Your task to perform on an android device: Open Google Maps Image 0: 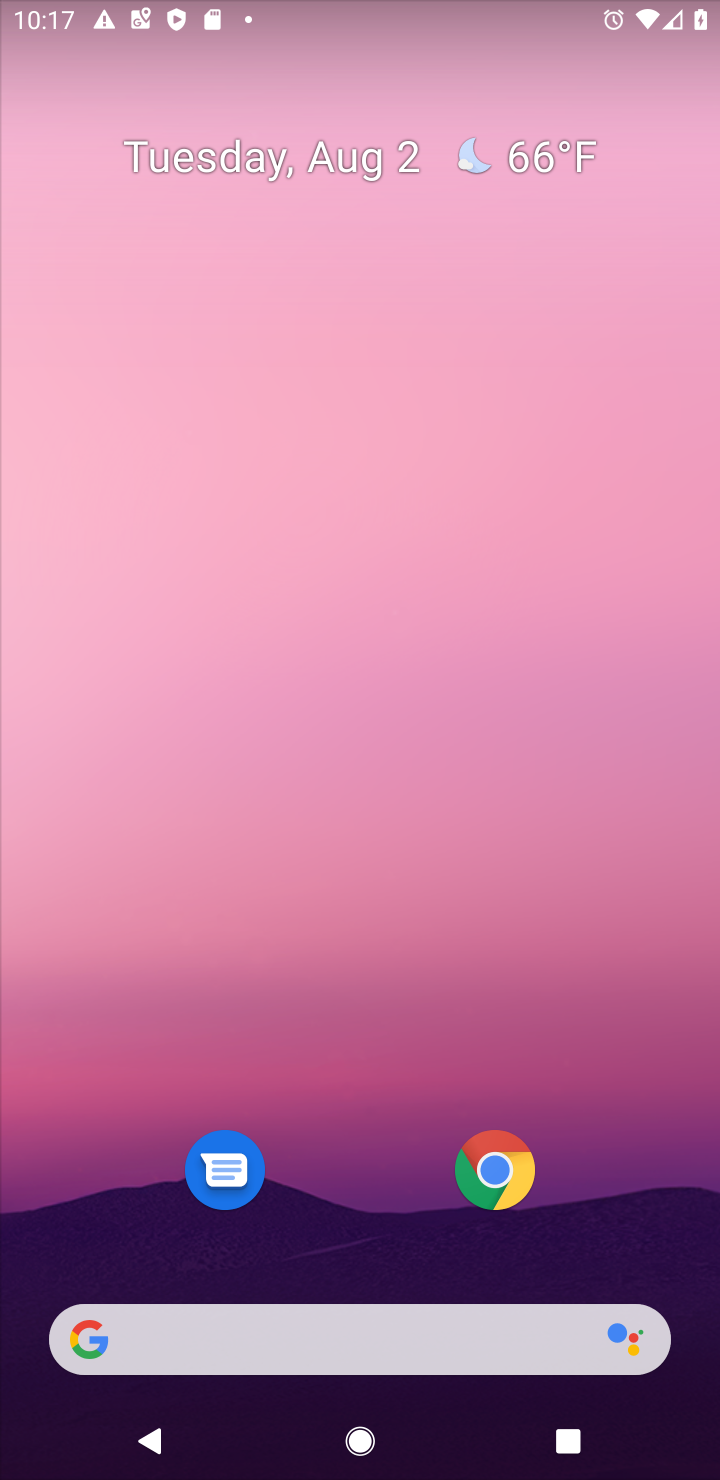
Step 0: click (378, 572)
Your task to perform on an android device: Open Google Maps Image 1: 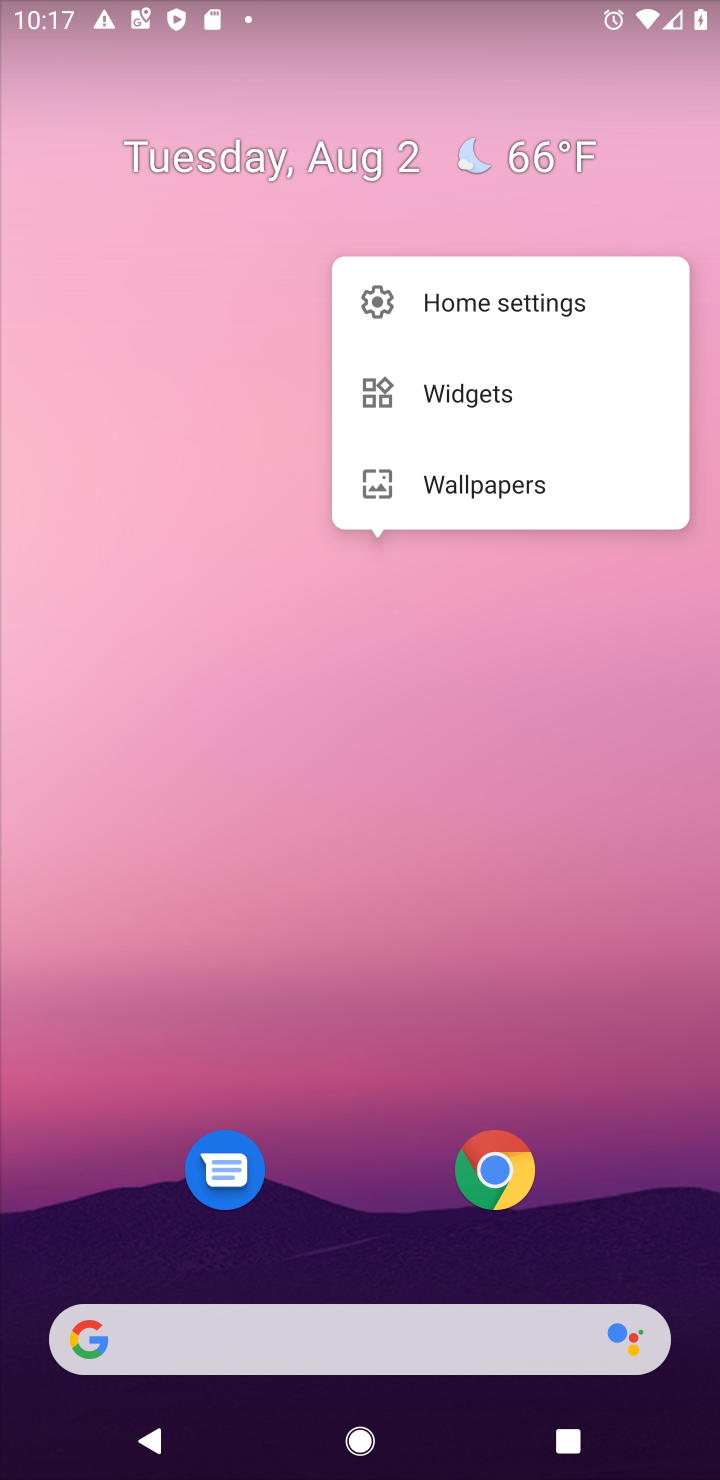
Step 1: click (300, 1211)
Your task to perform on an android device: Open Google Maps Image 2: 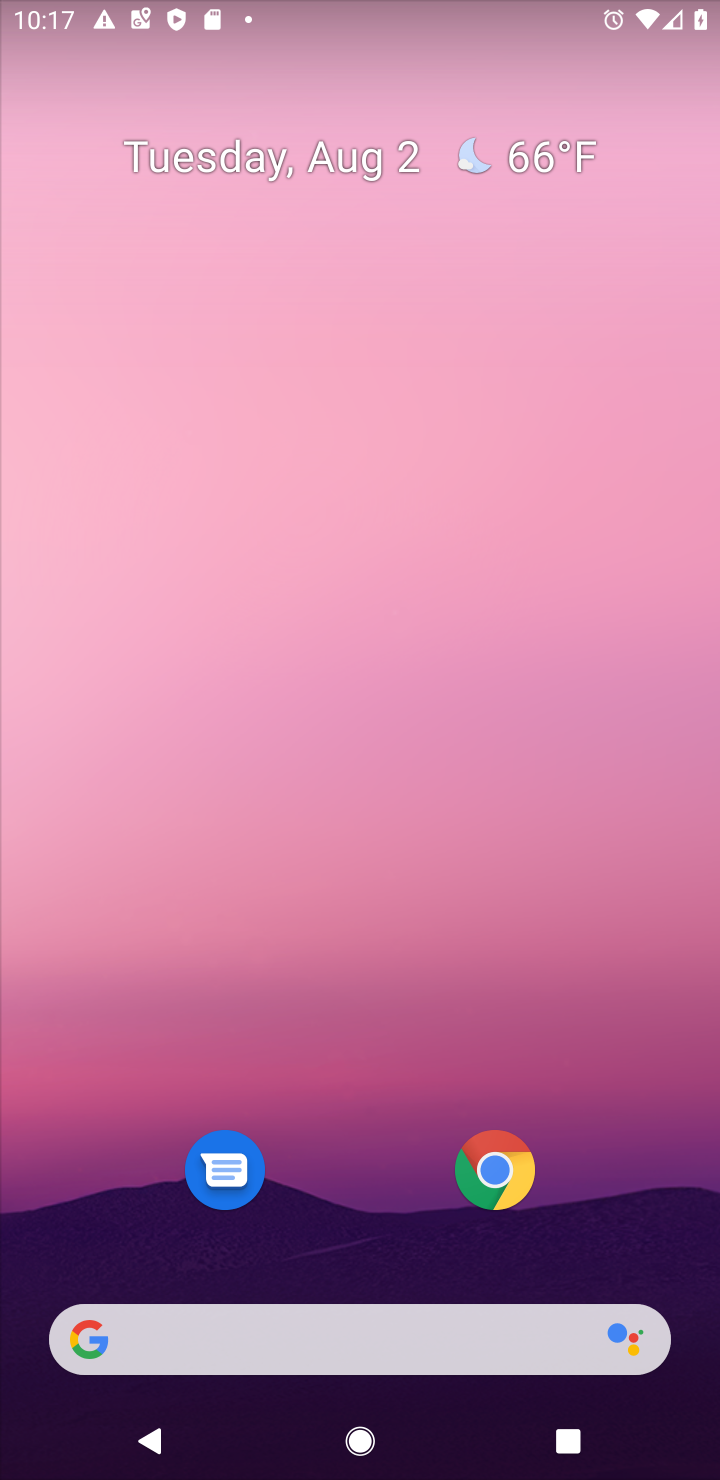
Step 2: drag from (288, 1219) to (310, 68)
Your task to perform on an android device: Open Google Maps Image 3: 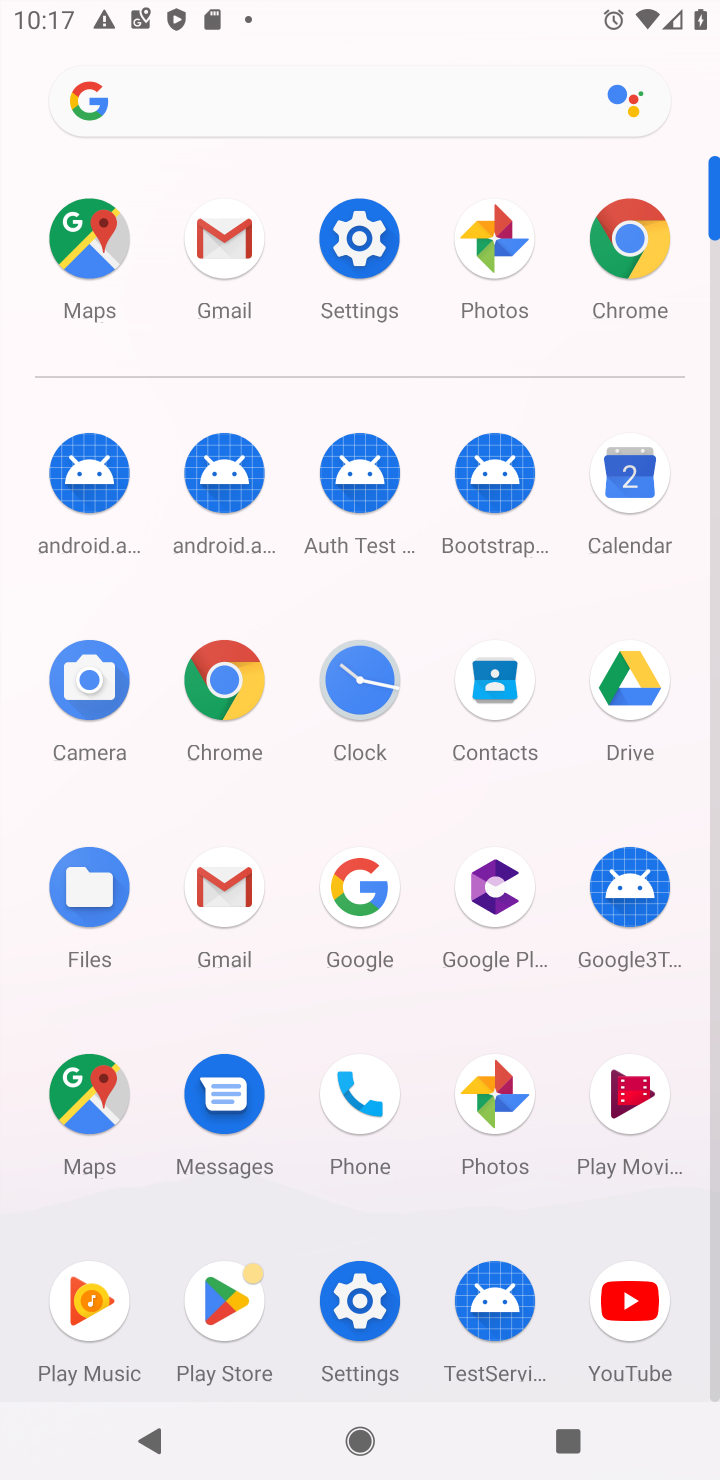
Step 3: click (88, 236)
Your task to perform on an android device: Open Google Maps Image 4: 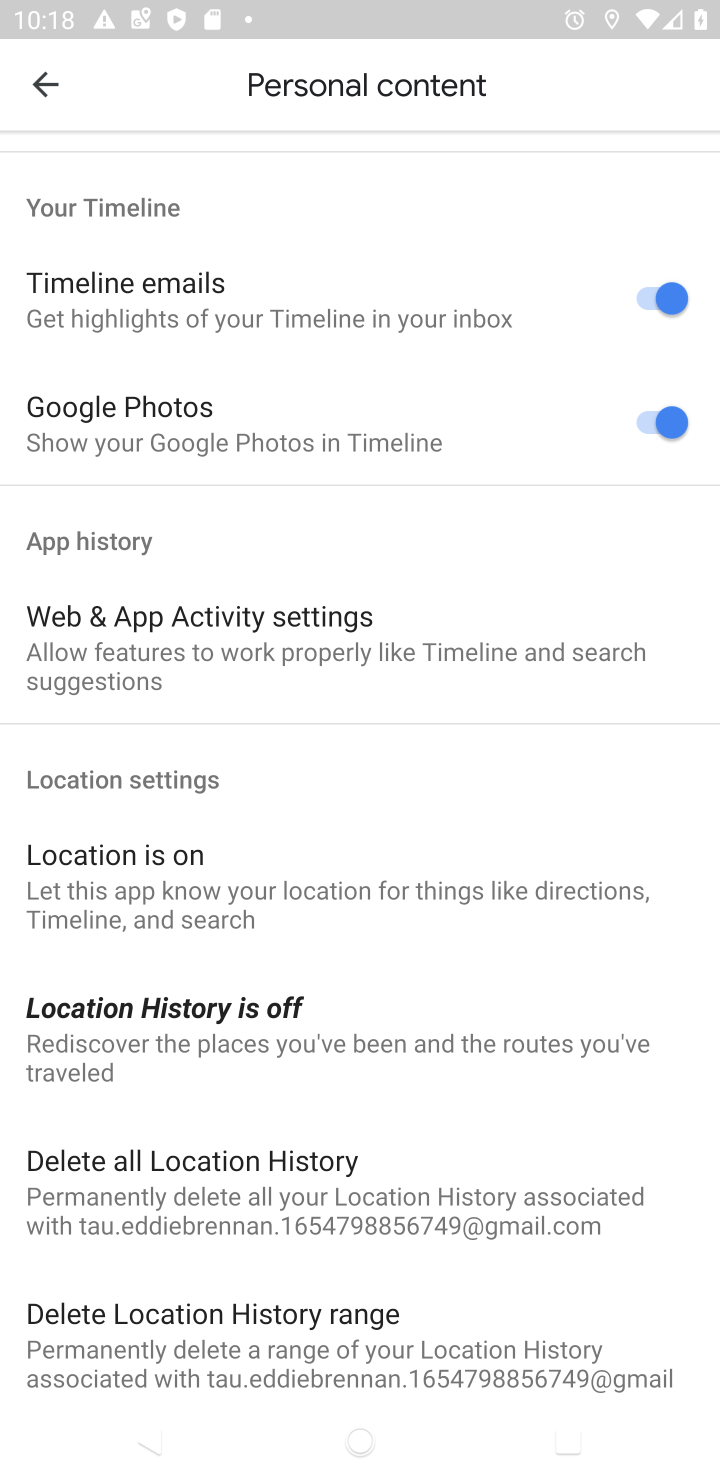
Step 4: click (44, 72)
Your task to perform on an android device: Open Google Maps Image 5: 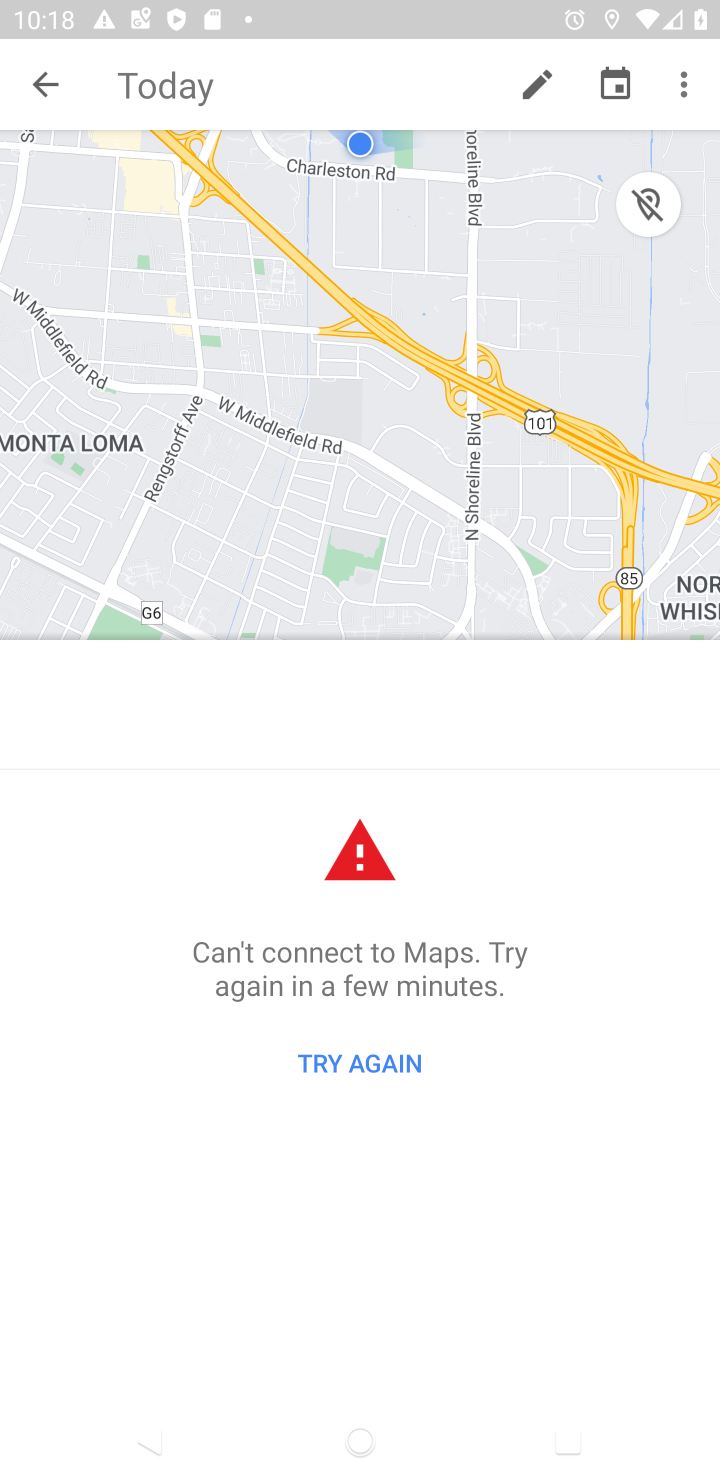
Step 5: task complete